Your task to perform on an android device: allow notifications from all sites in the chrome app Image 0: 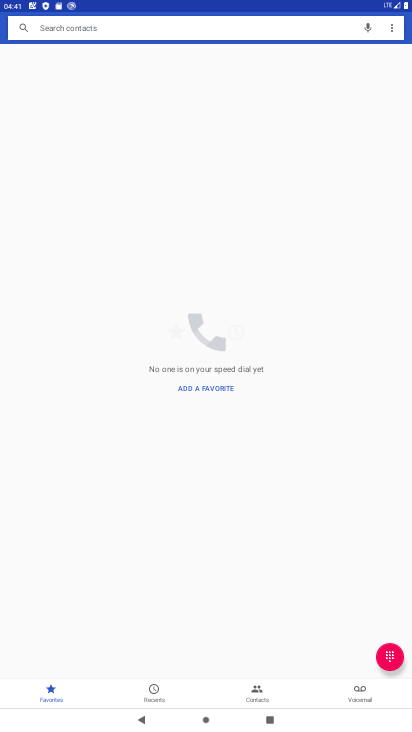
Step 0: press home button
Your task to perform on an android device: allow notifications from all sites in the chrome app Image 1: 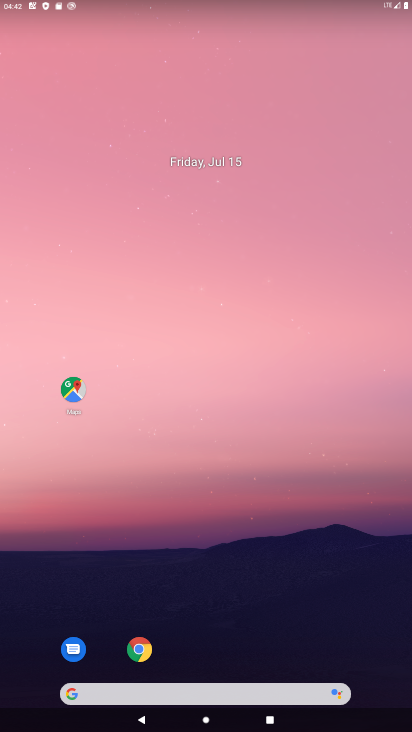
Step 1: drag from (279, 622) to (350, 126)
Your task to perform on an android device: allow notifications from all sites in the chrome app Image 2: 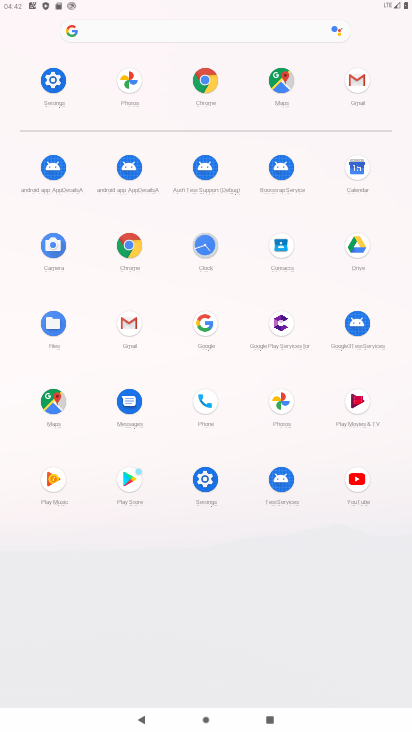
Step 2: click (204, 75)
Your task to perform on an android device: allow notifications from all sites in the chrome app Image 3: 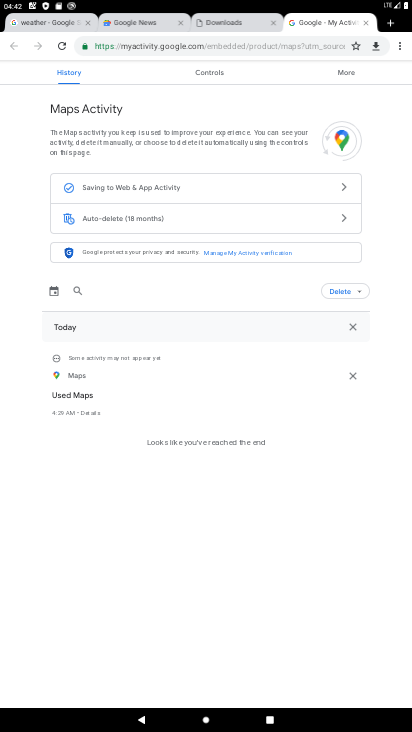
Step 3: drag from (394, 44) to (293, 309)
Your task to perform on an android device: allow notifications from all sites in the chrome app Image 4: 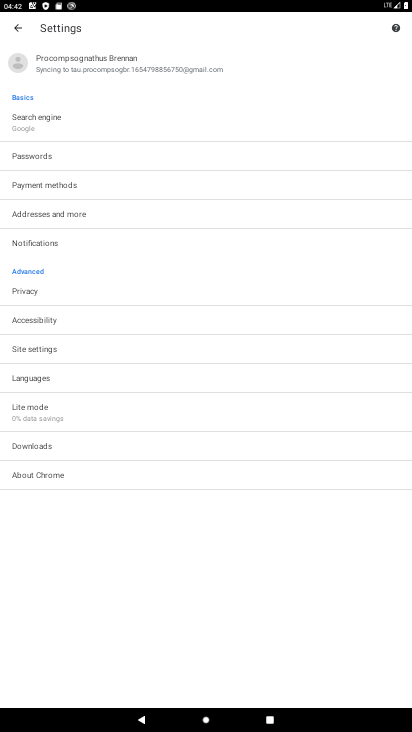
Step 4: click (52, 350)
Your task to perform on an android device: allow notifications from all sites in the chrome app Image 5: 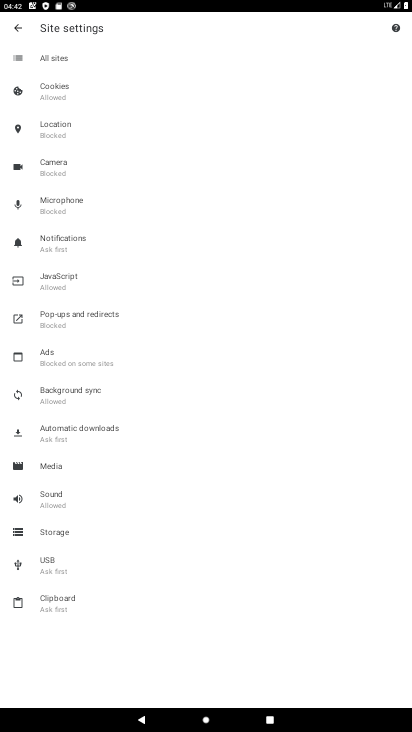
Step 5: click (62, 245)
Your task to perform on an android device: allow notifications from all sites in the chrome app Image 6: 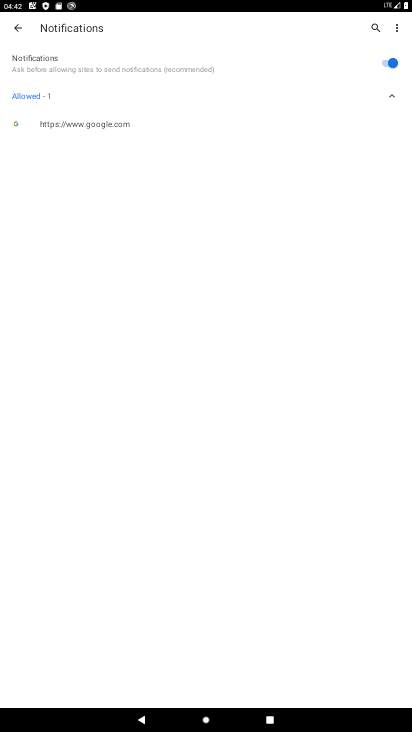
Step 6: task complete